Your task to perform on an android device: Go to location settings Image 0: 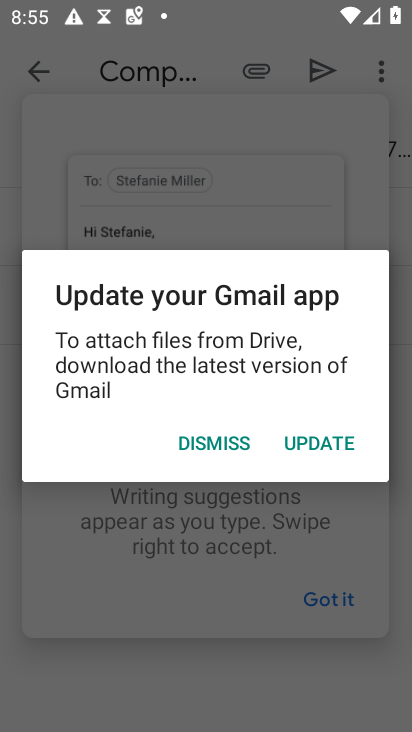
Step 0: press home button
Your task to perform on an android device: Go to location settings Image 1: 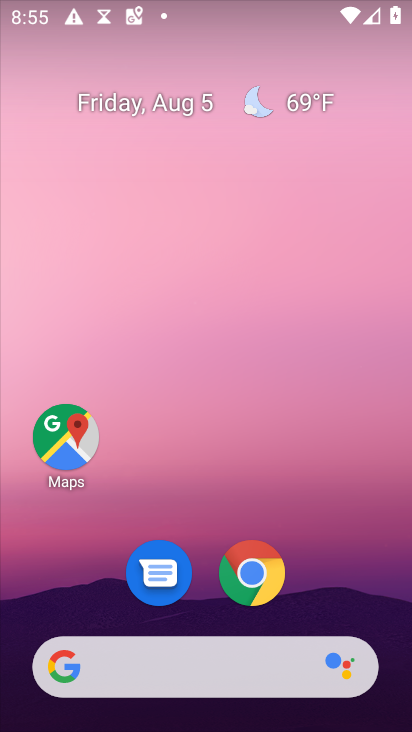
Step 1: drag from (210, 674) to (302, 171)
Your task to perform on an android device: Go to location settings Image 2: 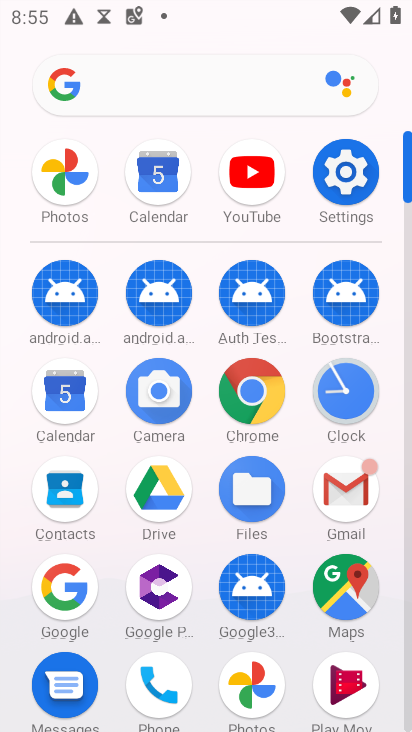
Step 2: click (348, 171)
Your task to perform on an android device: Go to location settings Image 3: 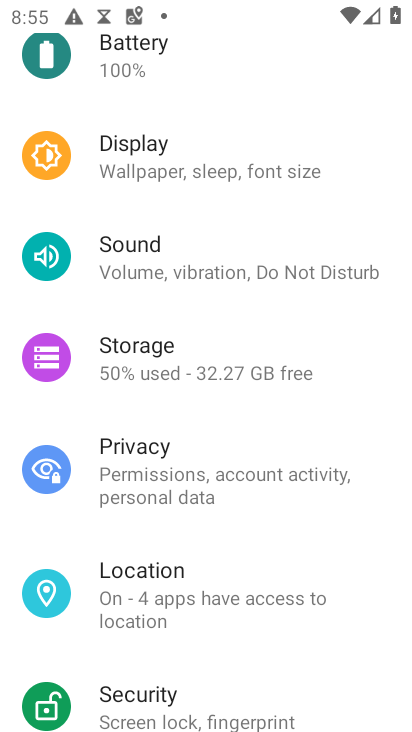
Step 3: click (142, 592)
Your task to perform on an android device: Go to location settings Image 4: 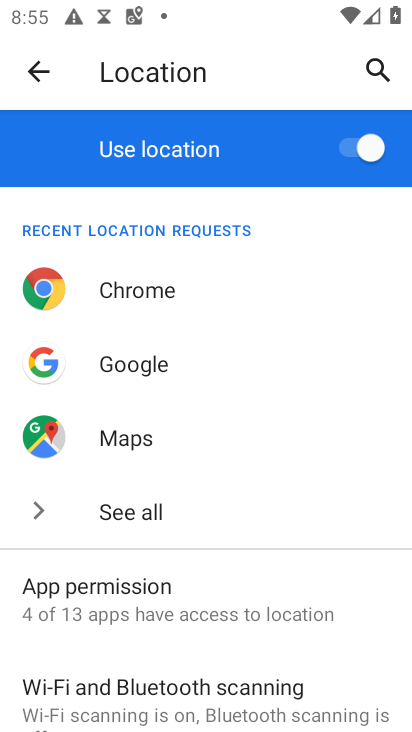
Step 4: task complete